Your task to perform on an android device: What's the weather going to be tomorrow? Image 0: 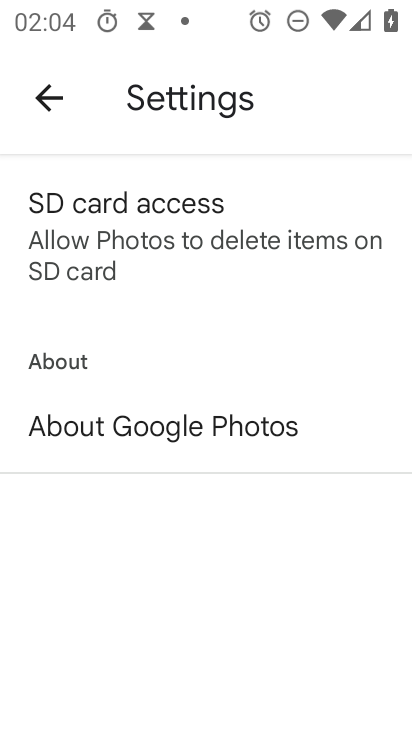
Step 0: press home button
Your task to perform on an android device: What's the weather going to be tomorrow? Image 1: 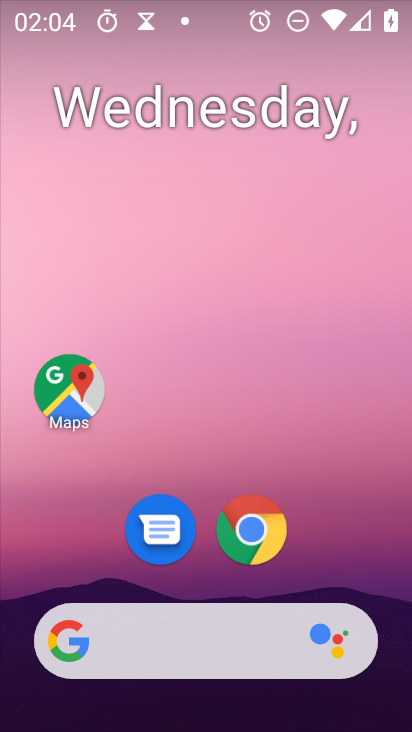
Step 1: drag from (40, 443) to (397, 476)
Your task to perform on an android device: What's the weather going to be tomorrow? Image 2: 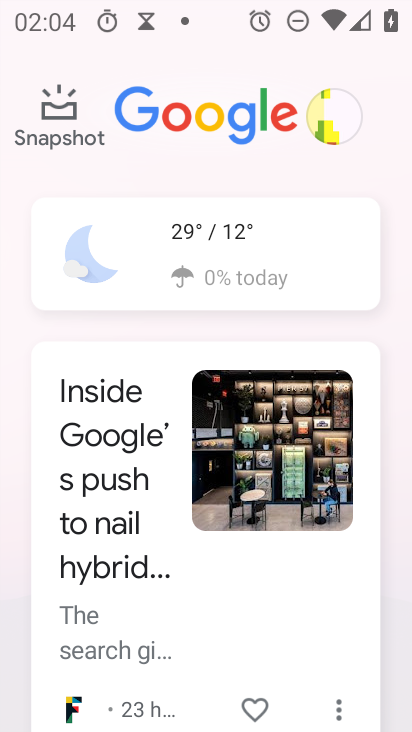
Step 2: click (238, 259)
Your task to perform on an android device: What's the weather going to be tomorrow? Image 3: 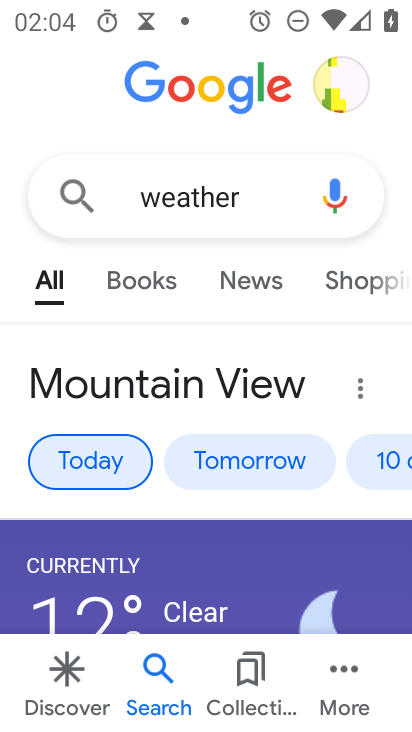
Step 3: task complete